Your task to perform on an android device: Open Google Chrome Image 0: 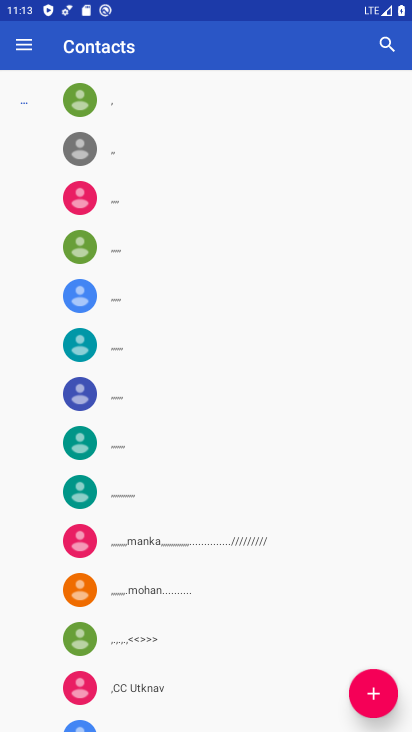
Step 0: press home button
Your task to perform on an android device: Open Google Chrome Image 1: 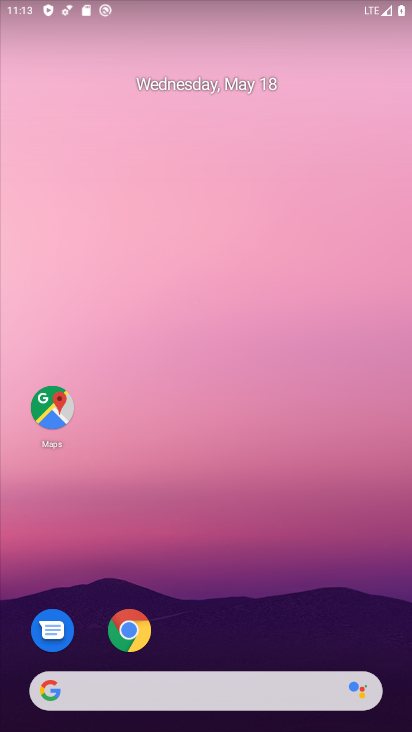
Step 1: click (143, 638)
Your task to perform on an android device: Open Google Chrome Image 2: 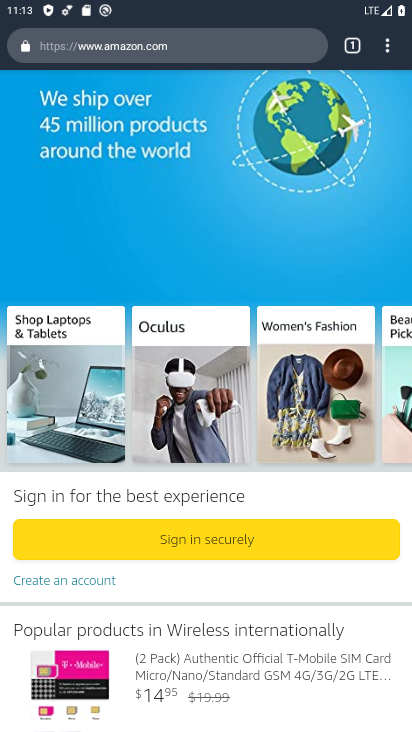
Step 2: task complete